Your task to perform on an android device: clear history in the chrome app Image 0: 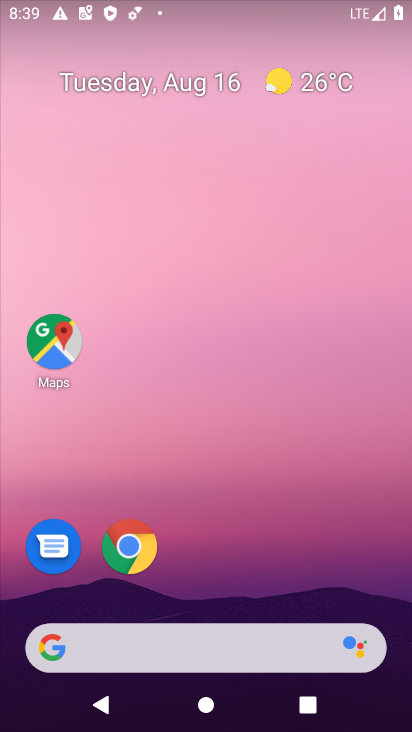
Step 0: click (126, 549)
Your task to perform on an android device: clear history in the chrome app Image 1: 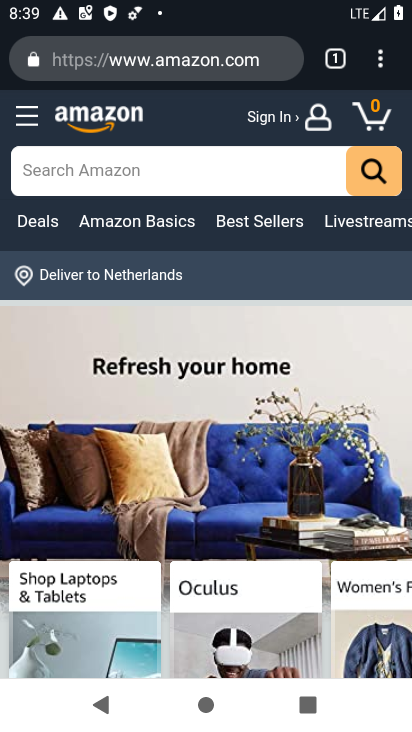
Step 1: click (382, 63)
Your task to perform on an android device: clear history in the chrome app Image 2: 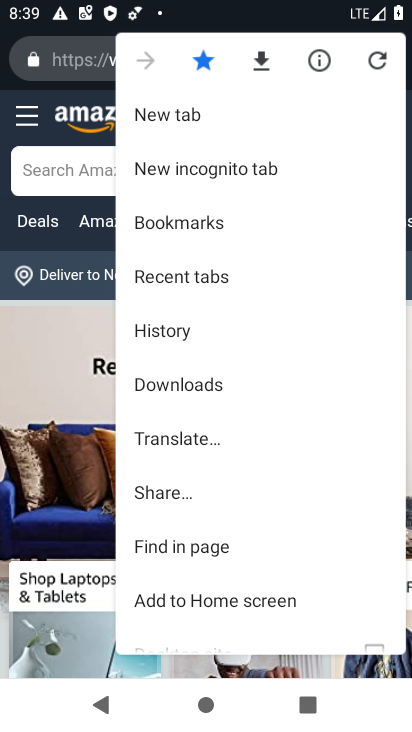
Step 2: click (175, 334)
Your task to perform on an android device: clear history in the chrome app Image 3: 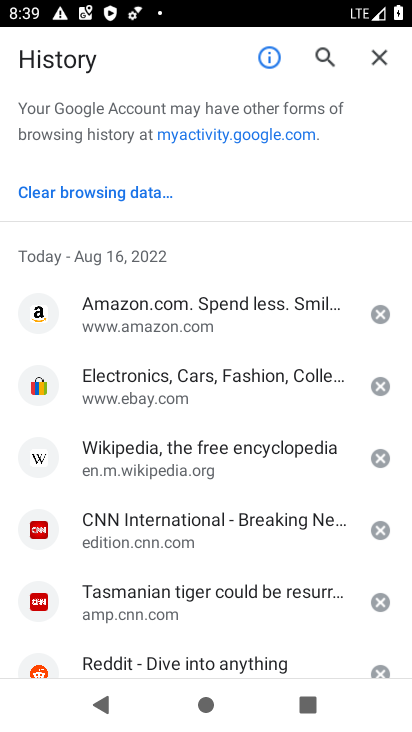
Step 3: click (113, 192)
Your task to perform on an android device: clear history in the chrome app Image 4: 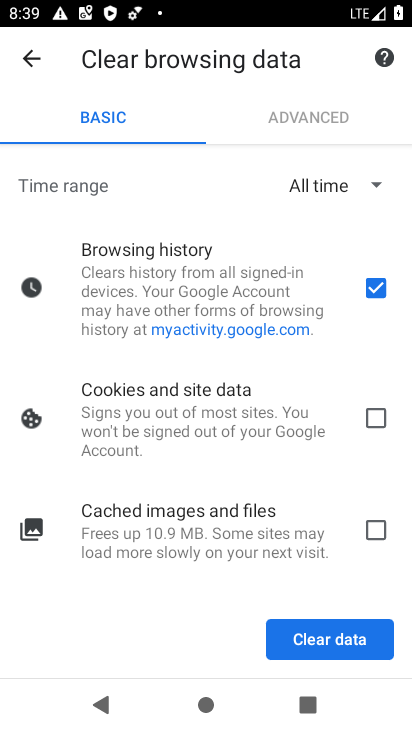
Step 4: click (331, 634)
Your task to perform on an android device: clear history in the chrome app Image 5: 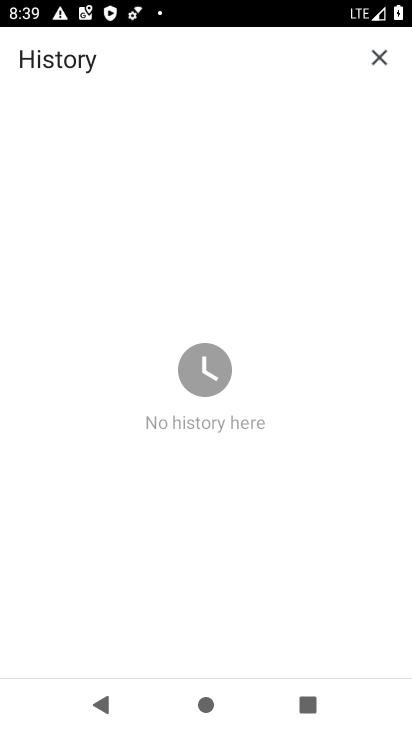
Step 5: task complete